Your task to perform on an android device: What's the weather today? Image 0: 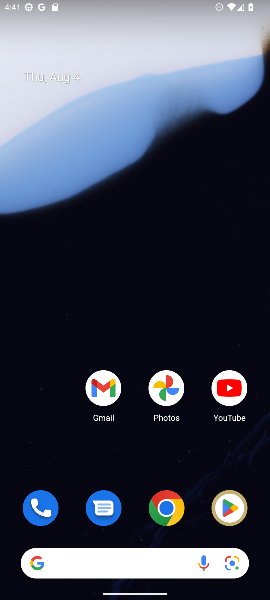
Step 0: drag from (138, 526) to (250, 145)
Your task to perform on an android device: What's the weather today? Image 1: 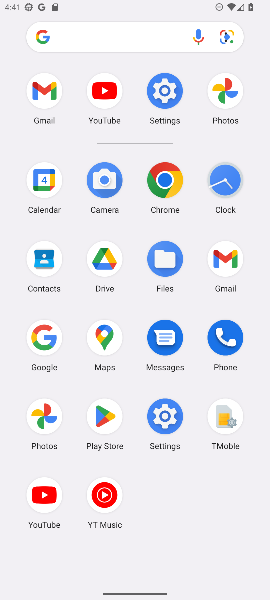
Step 1: click (75, 32)
Your task to perform on an android device: What's the weather today? Image 2: 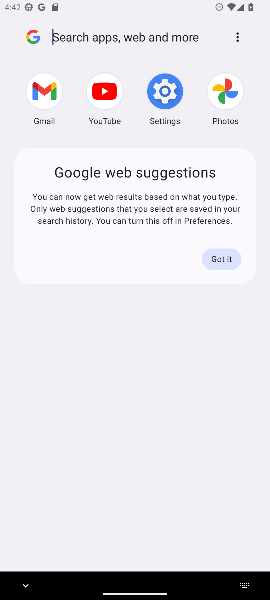
Step 2: click (71, 383)
Your task to perform on an android device: What's the weather today? Image 3: 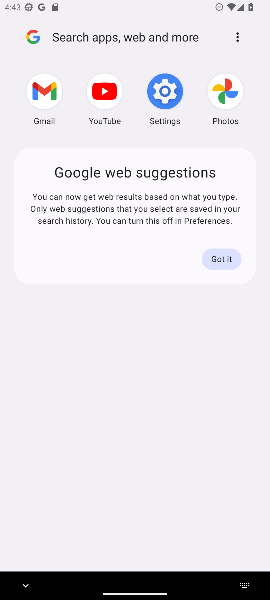
Step 3: type "Wikipedia"
Your task to perform on an android device: What's the weather today? Image 4: 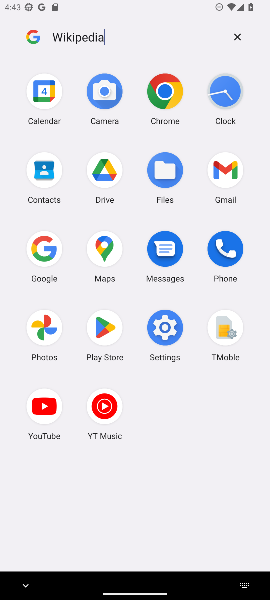
Step 4: type ""
Your task to perform on an android device: What's the weather today? Image 5: 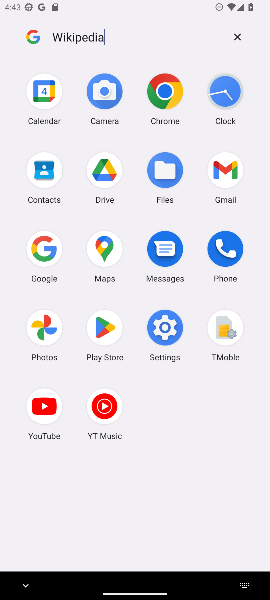
Step 5: click (231, 29)
Your task to perform on an android device: What's the weather today? Image 6: 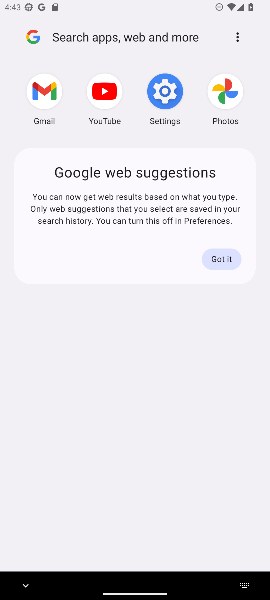
Step 6: type "weather"
Your task to perform on an android device: What's the weather today? Image 7: 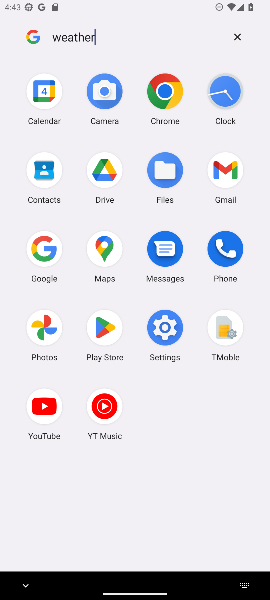
Step 7: type ""
Your task to perform on an android device: What's the weather today? Image 8: 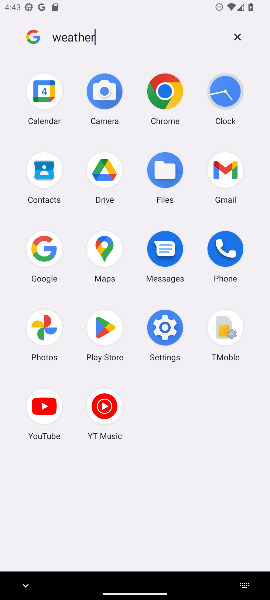
Step 8: task complete